Your task to perform on an android device: Open settings on Google Maps Image 0: 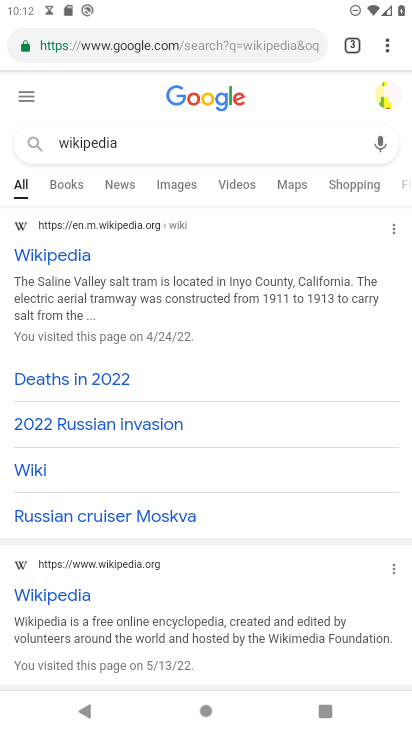
Step 0: press home button
Your task to perform on an android device: Open settings on Google Maps Image 1: 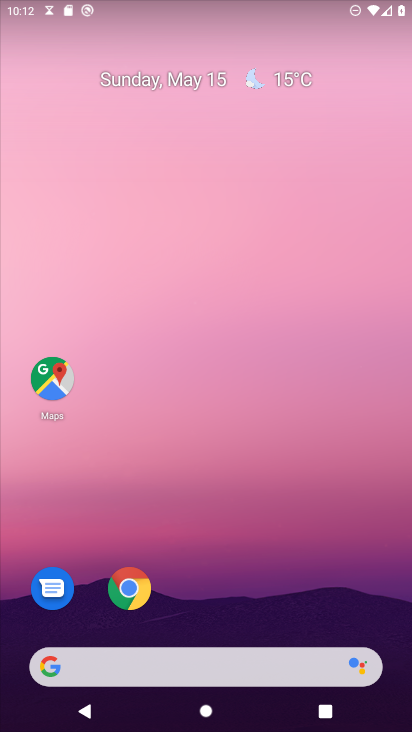
Step 1: click (65, 385)
Your task to perform on an android device: Open settings on Google Maps Image 2: 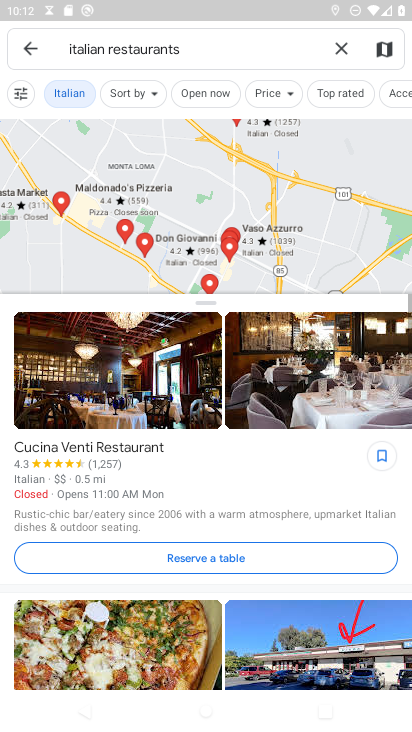
Step 2: click (27, 46)
Your task to perform on an android device: Open settings on Google Maps Image 3: 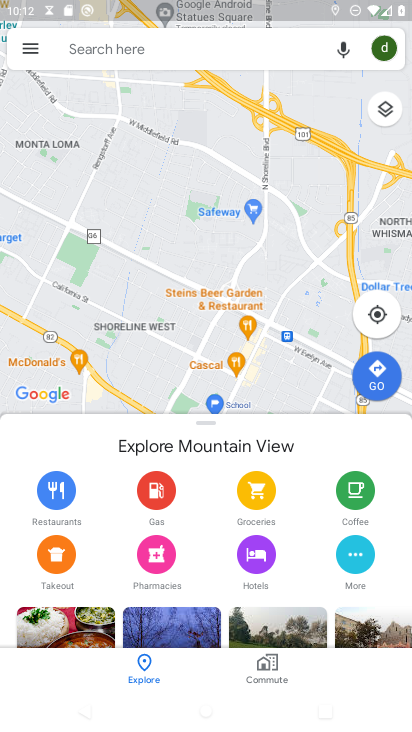
Step 3: click (27, 46)
Your task to perform on an android device: Open settings on Google Maps Image 4: 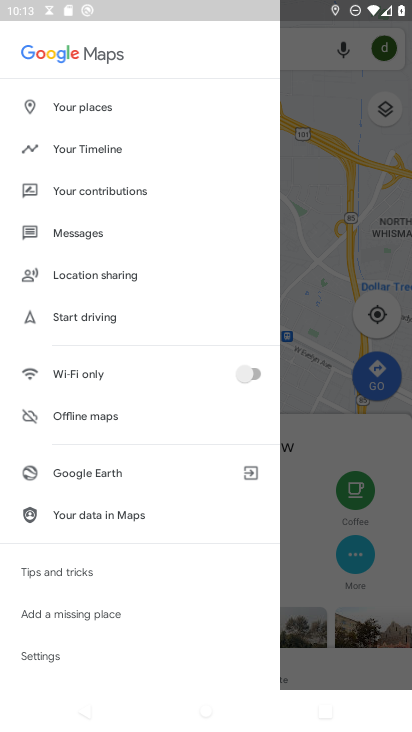
Step 4: click (37, 648)
Your task to perform on an android device: Open settings on Google Maps Image 5: 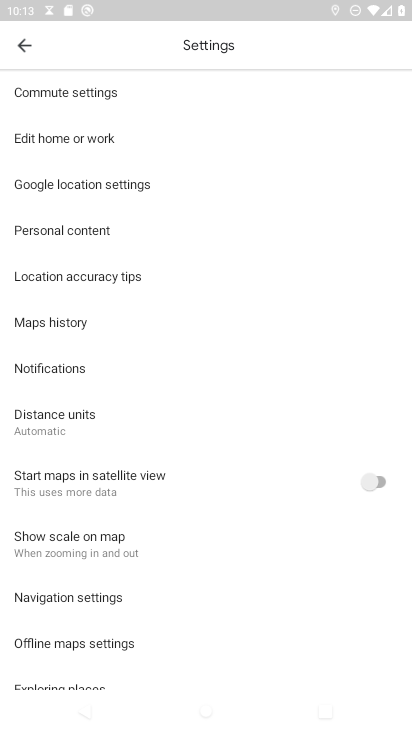
Step 5: task complete